Your task to perform on an android device: check android version Image 0: 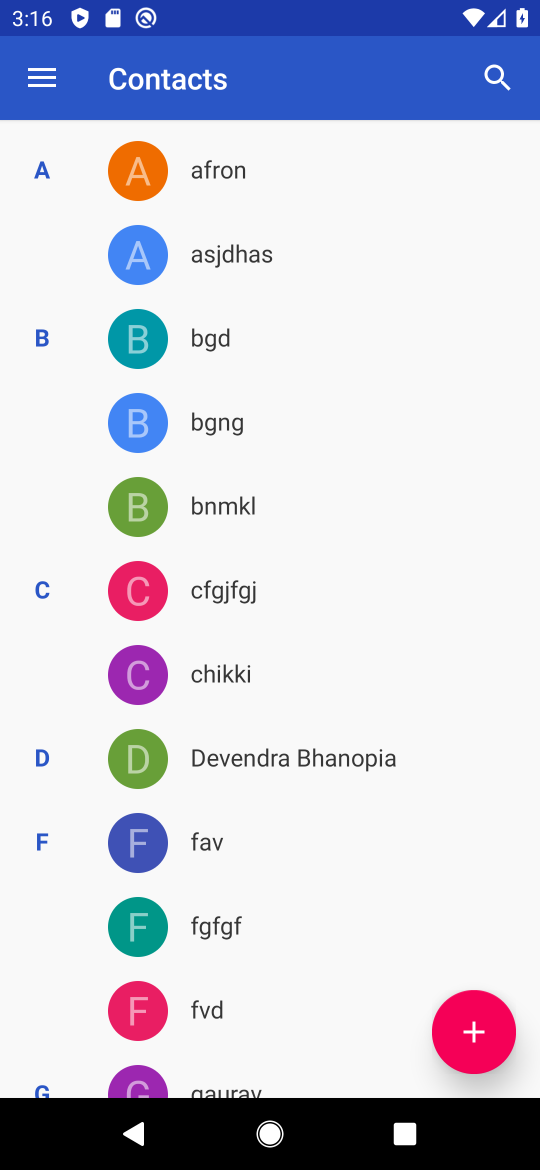
Step 0: press home button
Your task to perform on an android device: check android version Image 1: 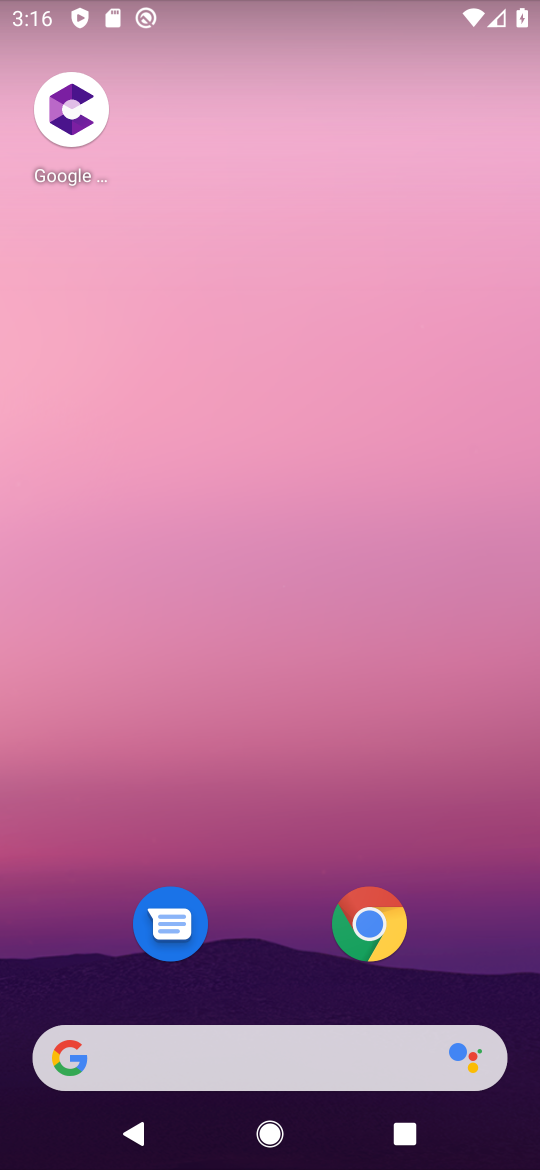
Step 1: drag from (224, 1033) to (255, 297)
Your task to perform on an android device: check android version Image 2: 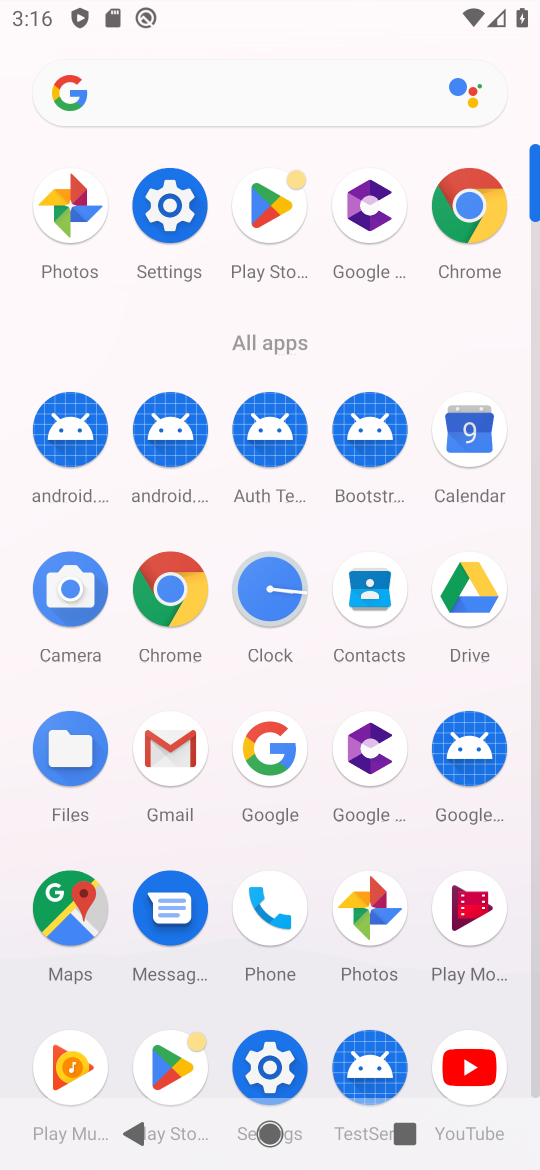
Step 2: click (172, 204)
Your task to perform on an android device: check android version Image 3: 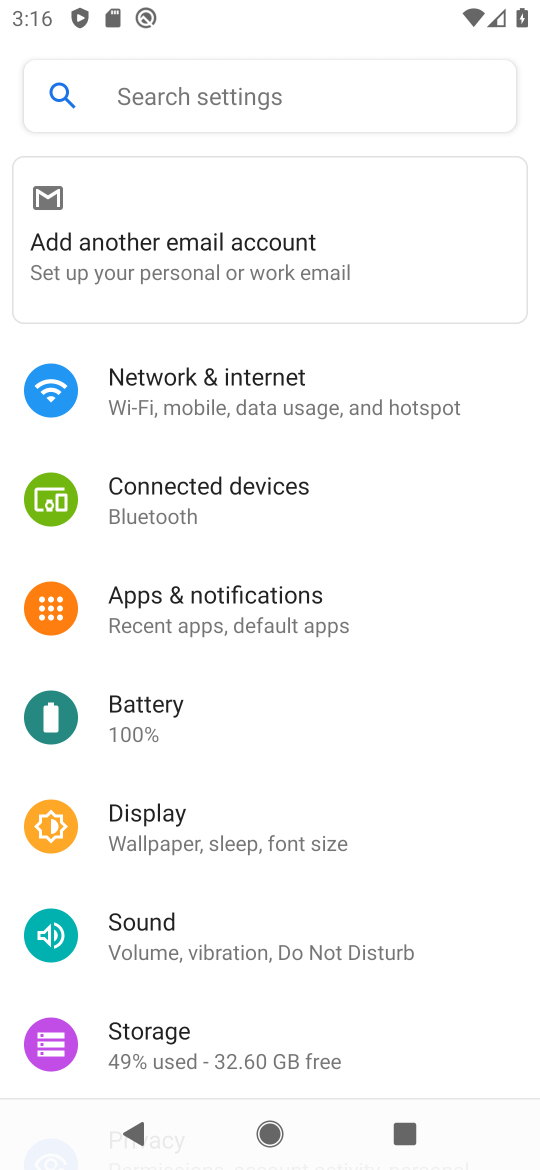
Step 3: drag from (239, 886) to (360, 572)
Your task to perform on an android device: check android version Image 4: 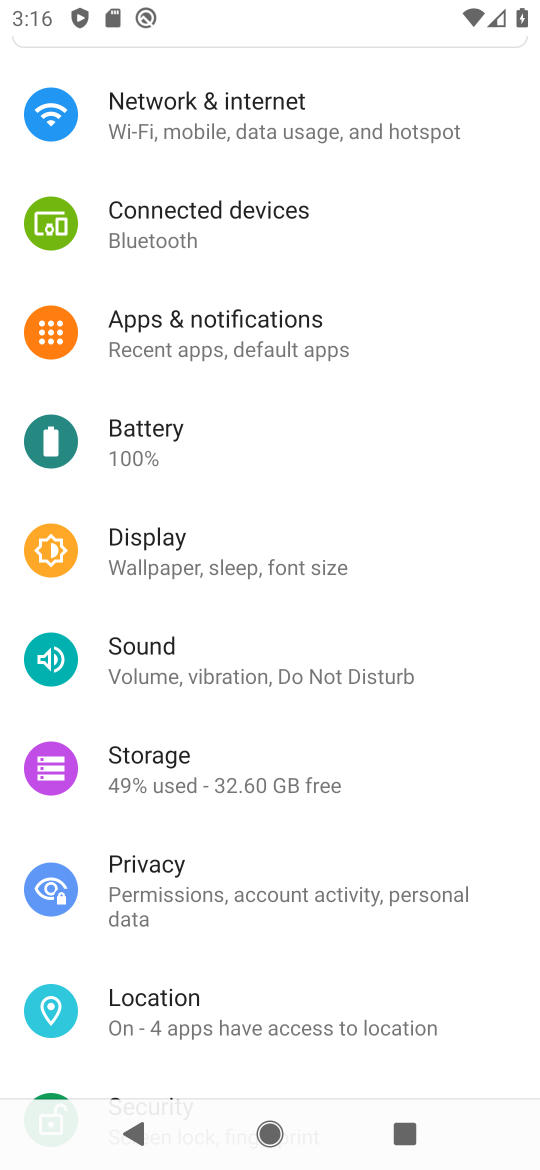
Step 4: drag from (259, 917) to (382, 702)
Your task to perform on an android device: check android version Image 5: 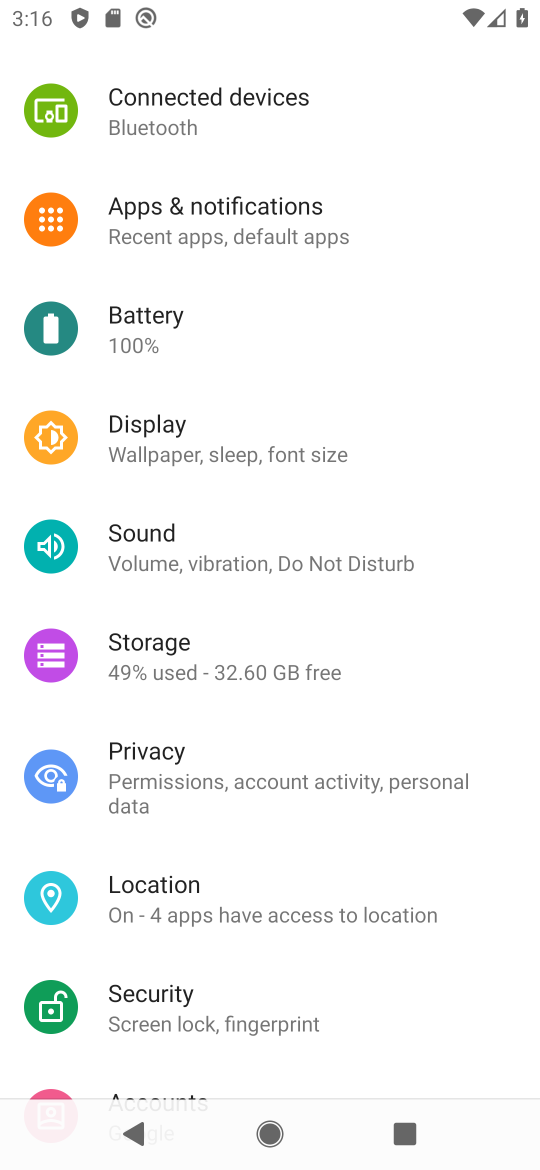
Step 5: drag from (233, 947) to (343, 762)
Your task to perform on an android device: check android version Image 6: 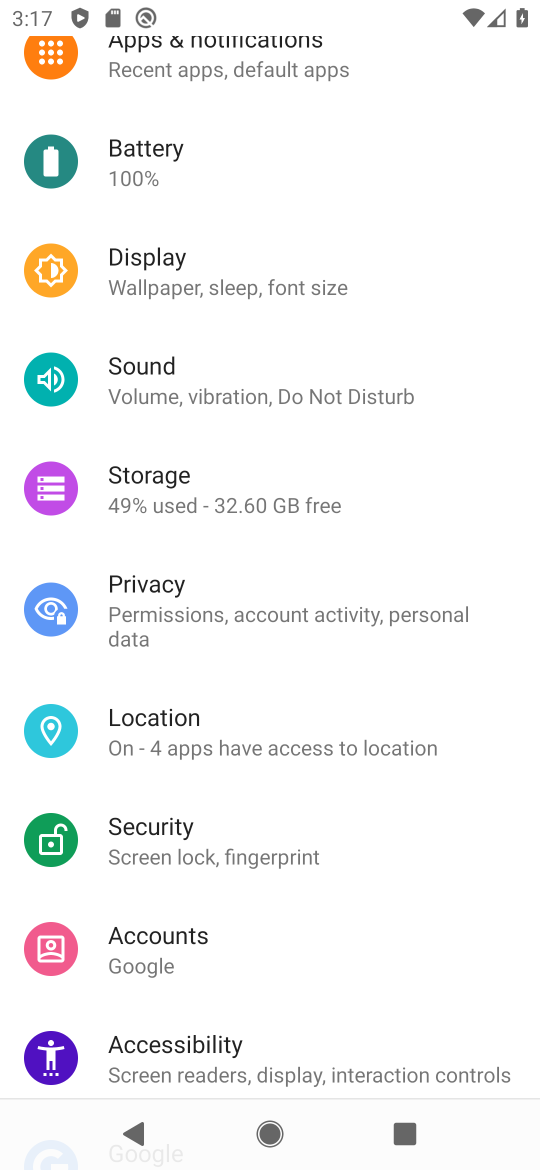
Step 6: drag from (245, 923) to (361, 709)
Your task to perform on an android device: check android version Image 7: 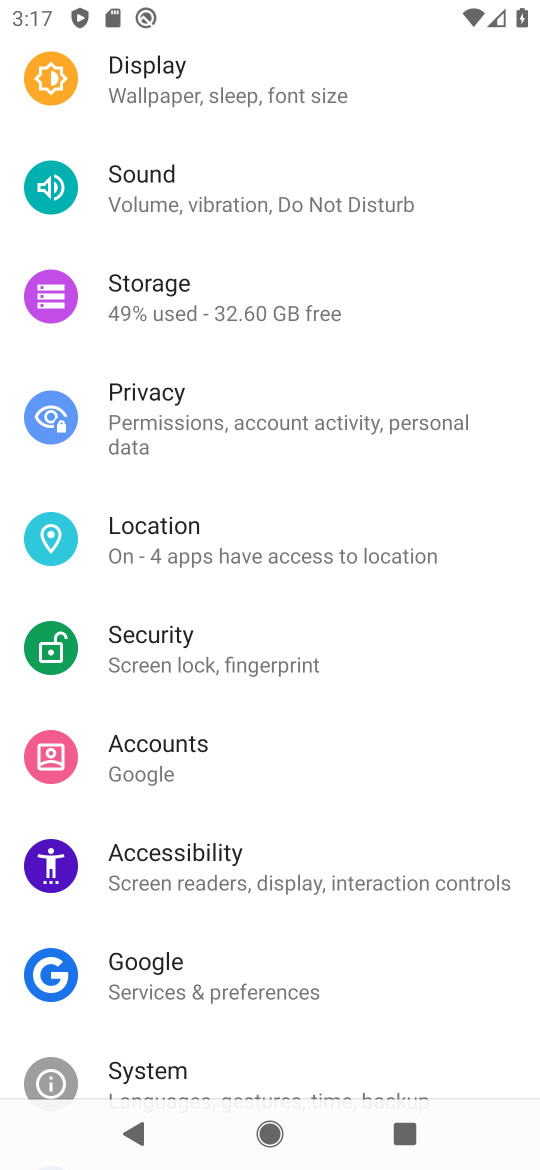
Step 7: drag from (220, 977) to (364, 730)
Your task to perform on an android device: check android version Image 8: 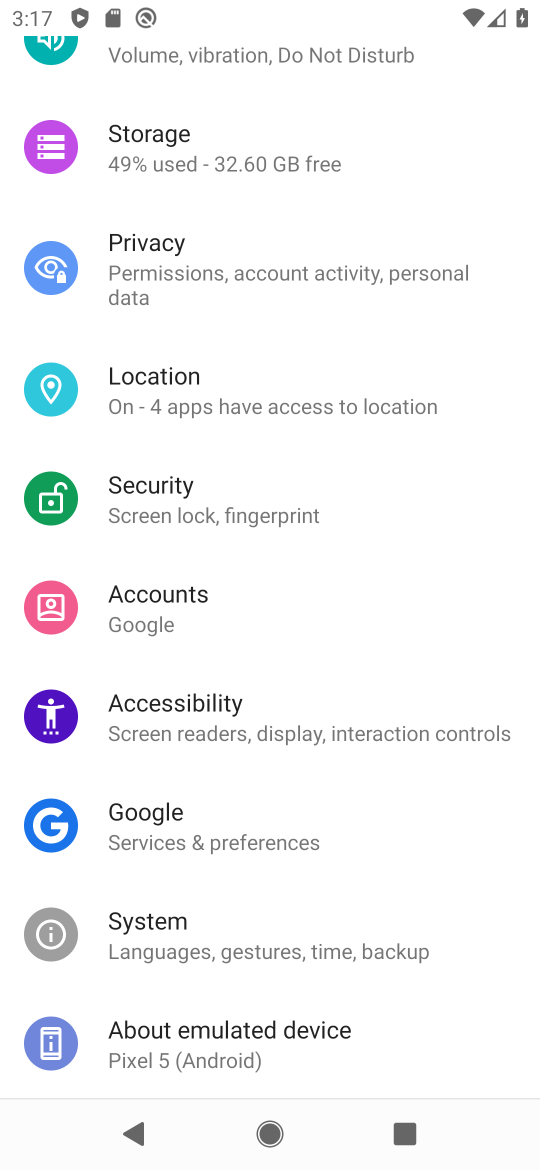
Step 8: click (258, 1052)
Your task to perform on an android device: check android version Image 9: 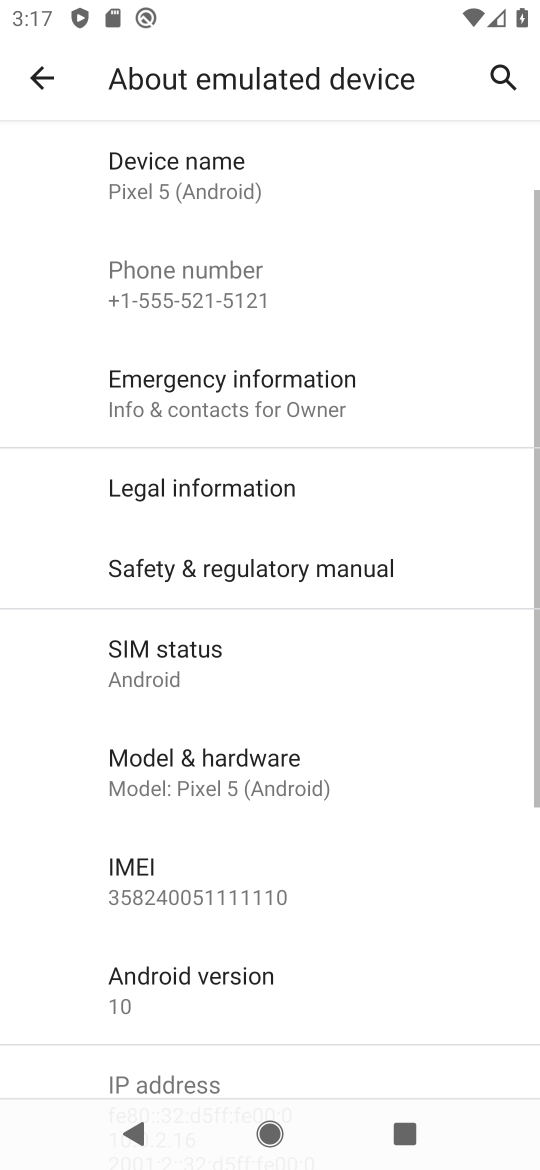
Step 9: click (238, 989)
Your task to perform on an android device: check android version Image 10: 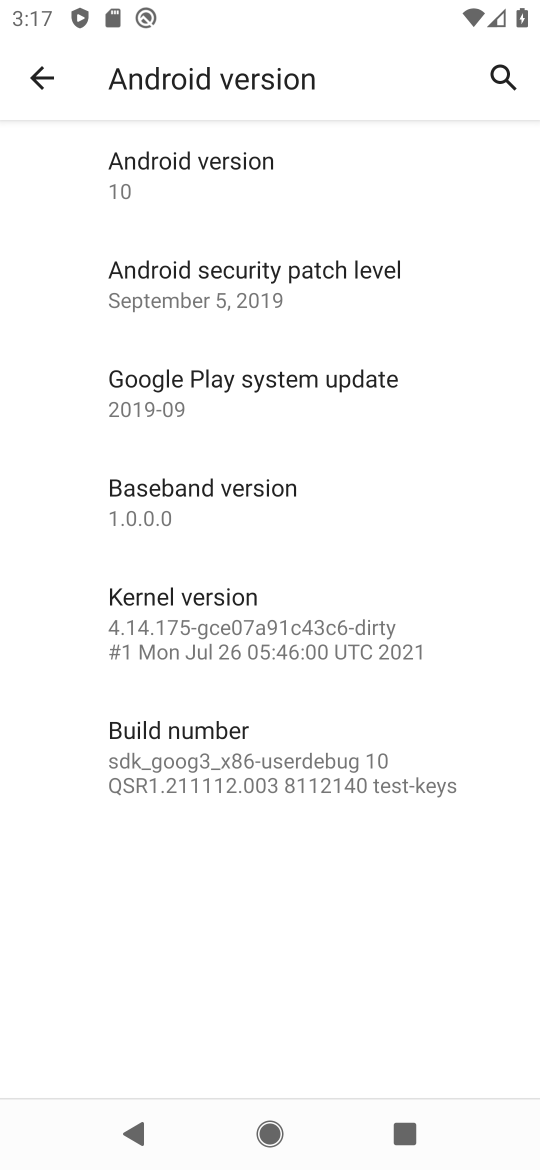
Step 10: task complete